Your task to perform on an android device: Go to privacy settings Image 0: 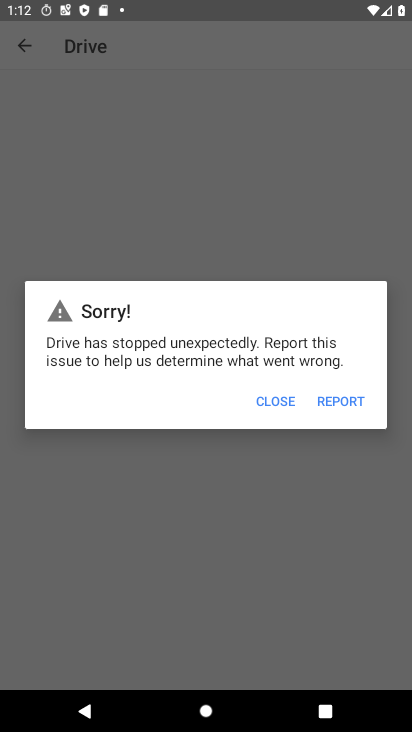
Step 0: press home button
Your task to perform on an android device: Go to privacy settings Image 1: 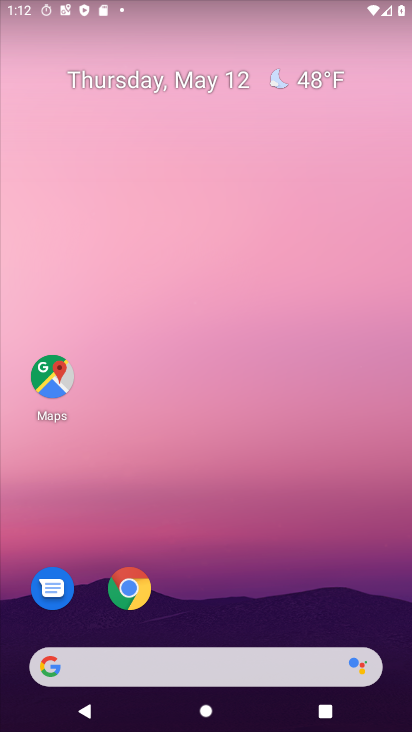
Step 1: drag from (238, 587) to (307, 31)
Your task to perform on an android device: Go to privacy settings Image 2: 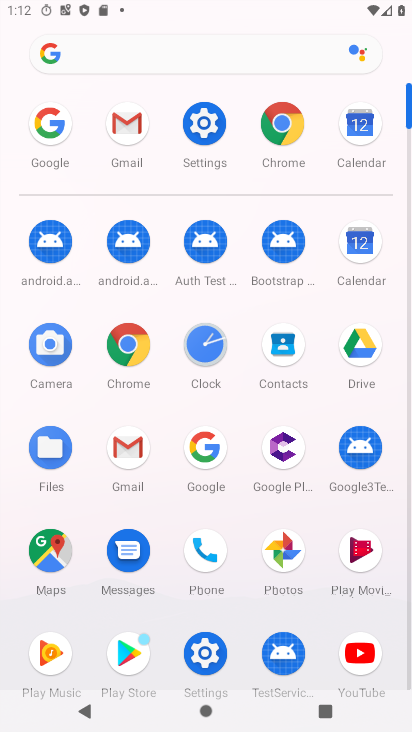
Step 2: click (201, 127)
Your task to perform on an android device: Go to privacy settings Image 3: 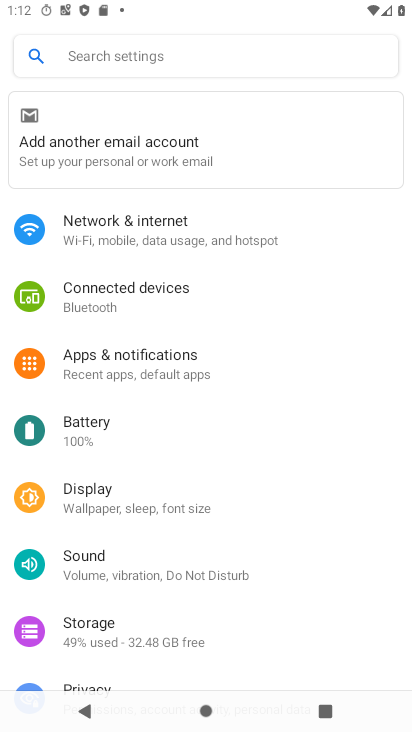
Step 3: drag from (197, 614) to (210, 432)
Your task to perform on an android device: Go to privacy settings Image 4: 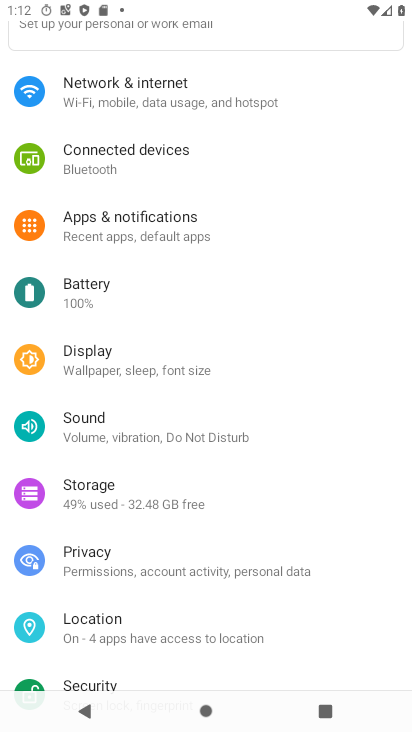
Step 4: click (127, 563)
Your task to perform on an android device: Go to privacy settings Image 5: 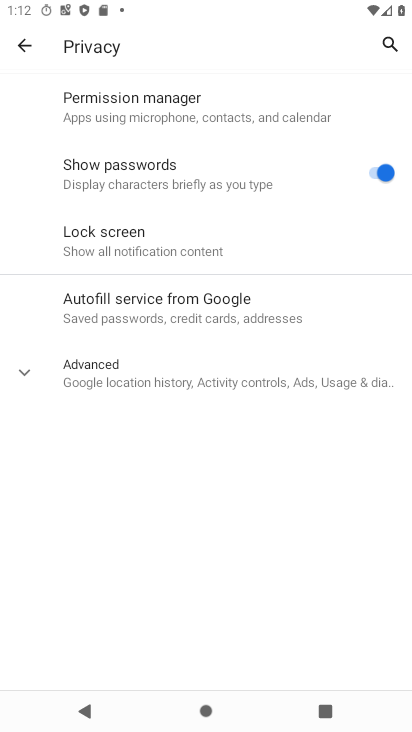
Step 5: task complete